Your task to perform on an android device: toggle location history Image 0: 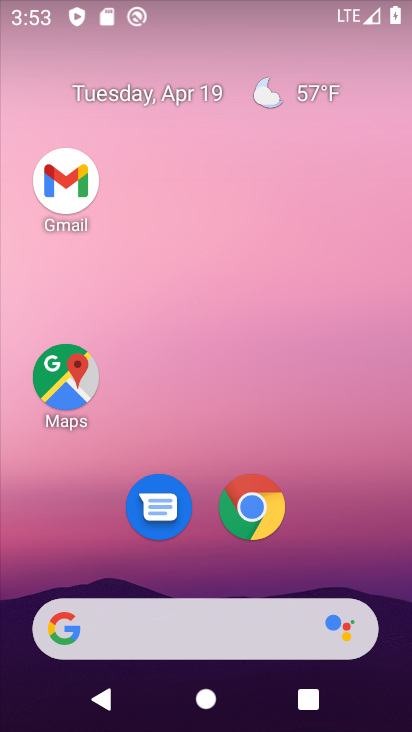
Step 0: drag from (180, 574) to (258, 135)
Your task to perform on an android device: toggle location history Image 1: 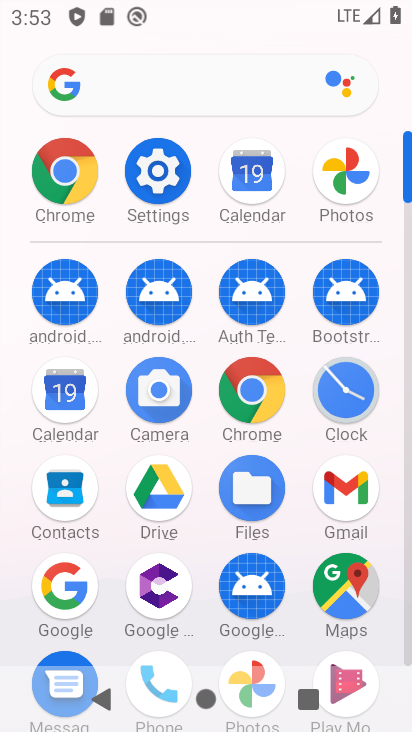
Step 1: click (152, 181)
Your task to perform on an android device: toggle location history Image 2: 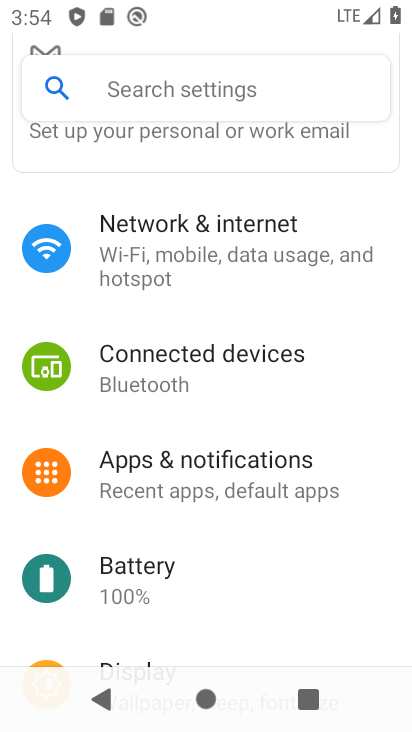
Step 2: drag from (215, 611) to (262, 203)
Your task to perform on an android device: toggle location history Image 3: 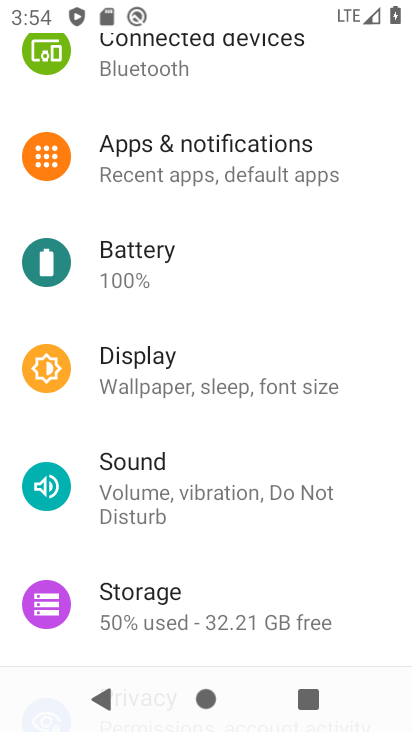
Step 3: drag from (182, 502) to (223, 141)
Your task to perform on an android device: toggle location history Image 4: 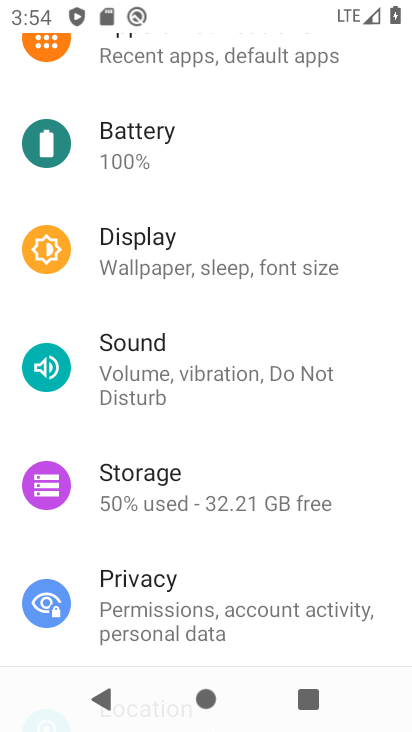
Step 4: drag from (167, 562) to (215, 238)
Your task to perform on an android device: toggle location history Image 5: 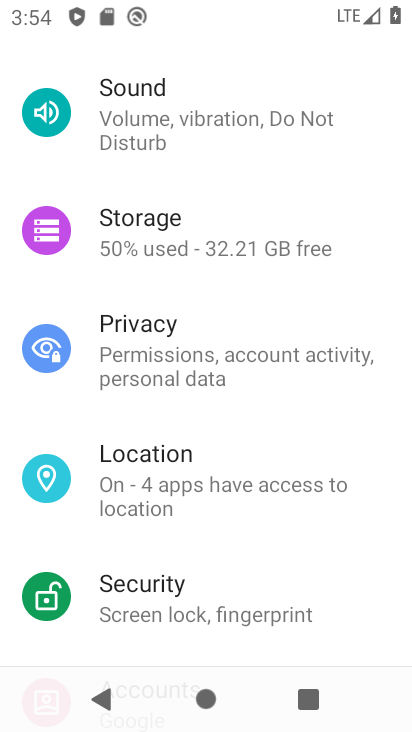
Step 5: click (185, 488)
Your task to perform on an android device: toggle location history Image 6: 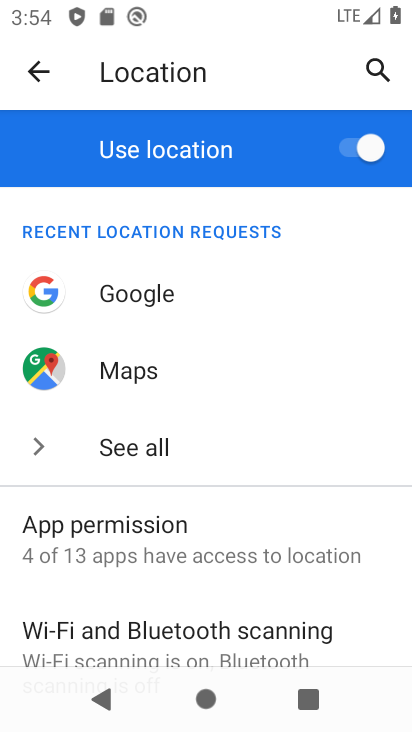
Step 6: drag from (187, 599) to (269, 171)
Your task to perform on an android device: toggle location history Image 7: 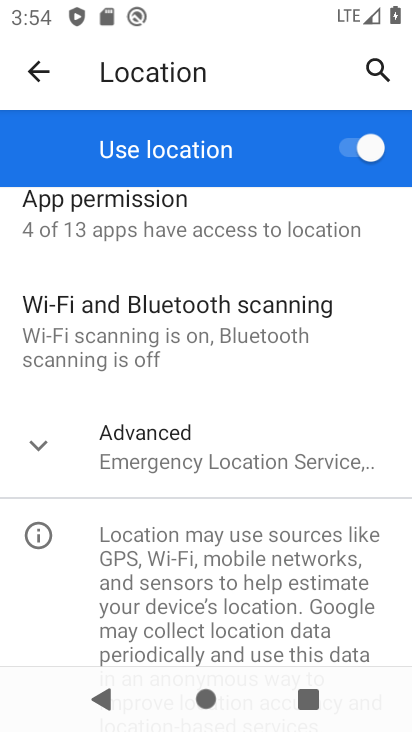
Step 7: click (204, 435)
Your task to perform on an android device: toggle location history Image 8: 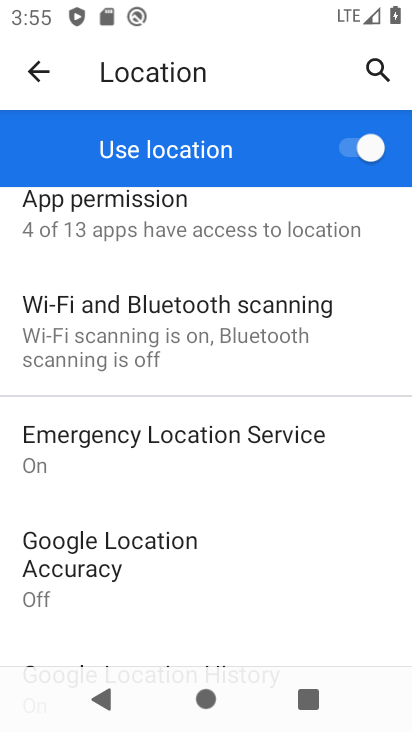
Step 8: click (352, 142)
Your task to perform on an android device: toggle location history Image 9: 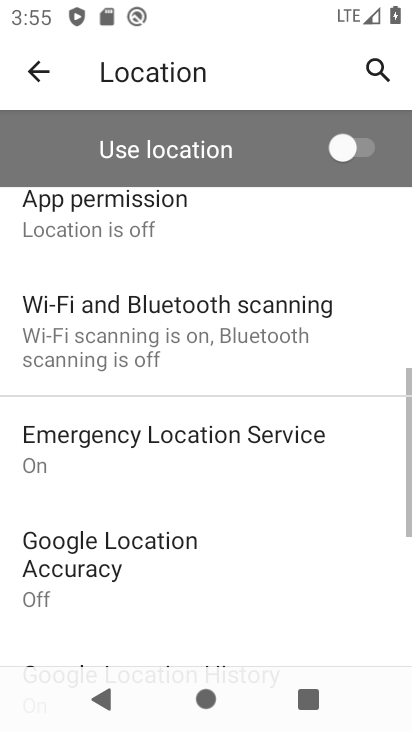
Step 9: task complete